Your task to perform on an android device: Do I have any events today? Image 0: 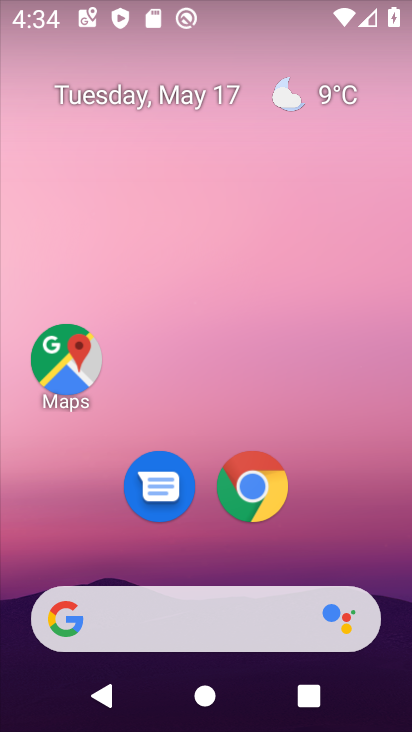
Step 0: drag from (379, 524) to (315, 133)
Your task to perform on an android device: Do I have any events today? Image 1: 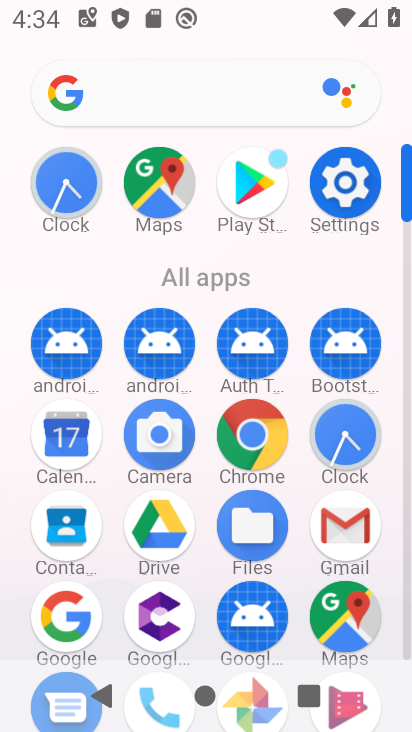
Step 1: click (76, 437)
Your task to perform on an android device: Do I have any events today? Image 2: 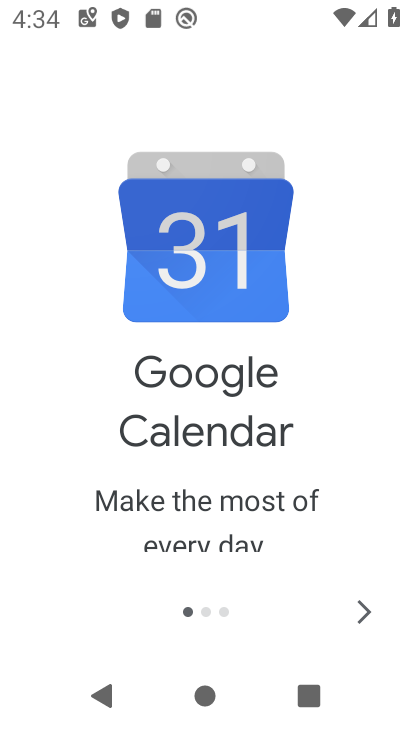
Step 2: click (365, 616)
Your task to perform on an android device: Do I have any events today? Image 3: 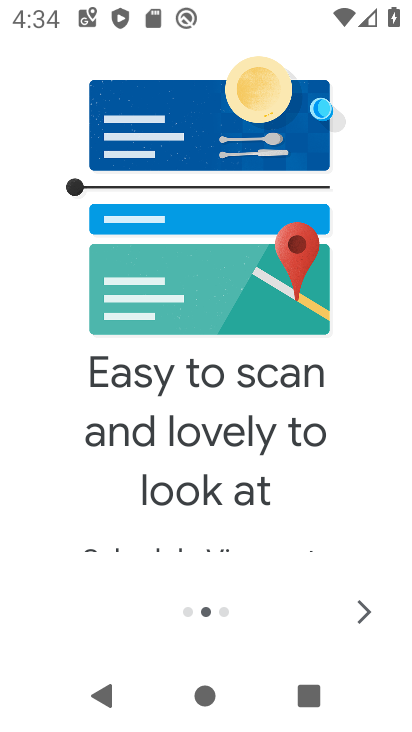
Step 3: click (365, 616)
Your task to perform on an android device: Do I have any events today? Image 4: 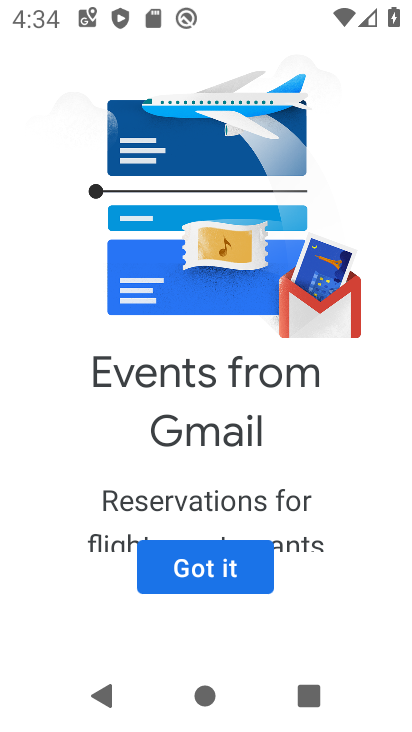
Step 4: click (245, 551)
Your task to perform on an android device: Do I have any events today? Image 5: 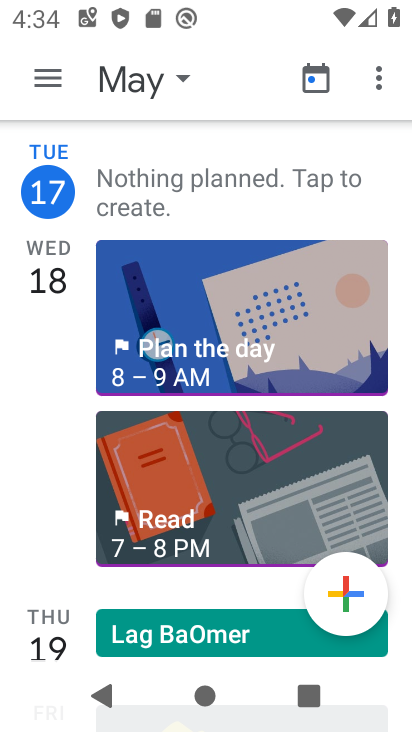
Step 5: click (57, 86)
Your task to perform on an android device: Do I have any events today? Image 6: 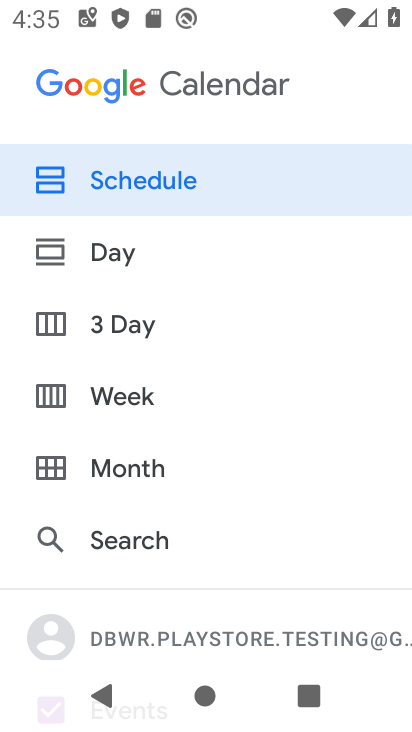
Step 6: drag from (208, 571) to (217, 247)
Your task to perform on an android device: Do I have any events today? Image 7: 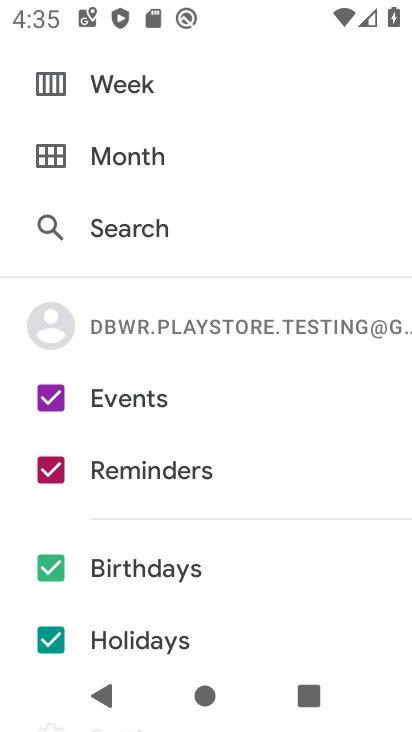
Step 7: click (52, 634)
Your task to perform on an android device: Do I have any events today? Image 8: 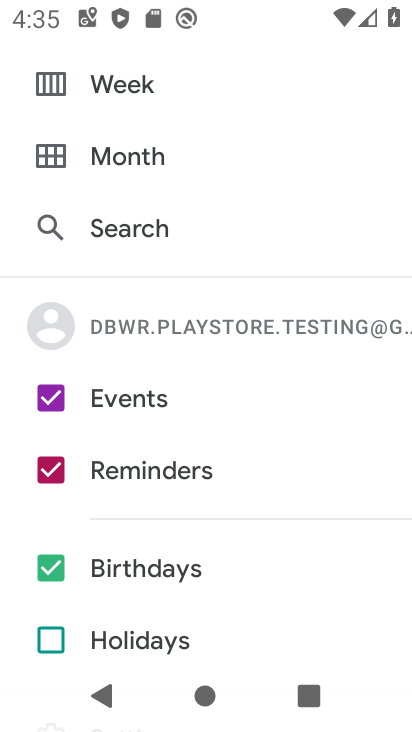
Step 8: click (55, 571)
Your task to perform on an android device: Do I have any events today? Image 9: 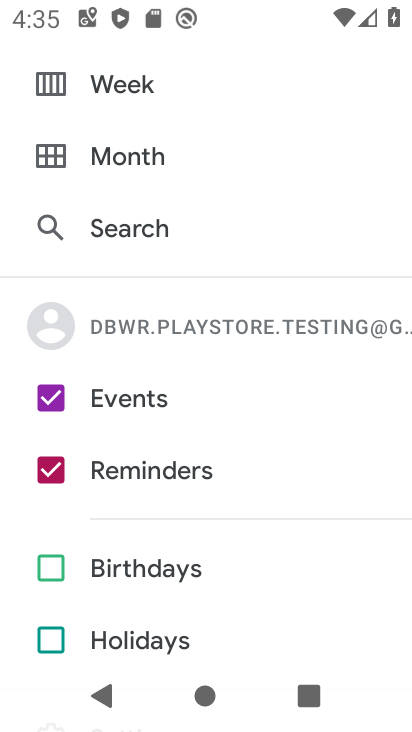
Step 9: click (48, 477)
Your task to perform on an android device: Do I have any events today? Image 10: 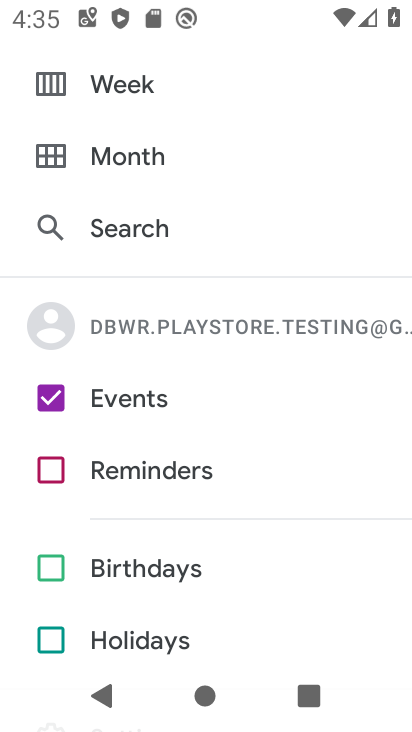
Step 10: drag from (169, 121) to (190, 547)
Your task to perform on an android device: Do I have any events today? Image 11: 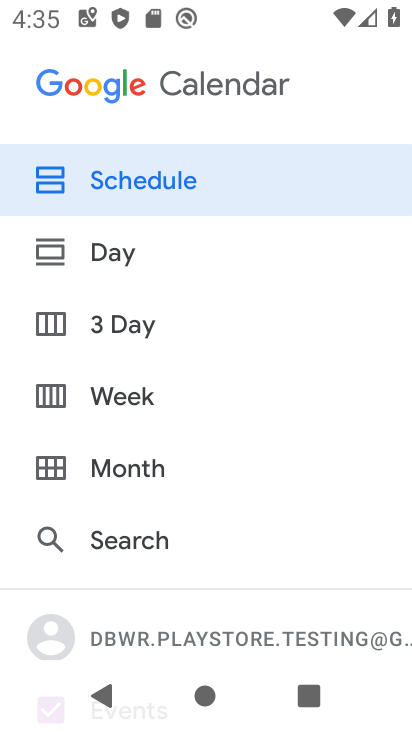
Step 11: click (152, 246)
Your task to perform on an android device: Do I have any events today? Image 12: 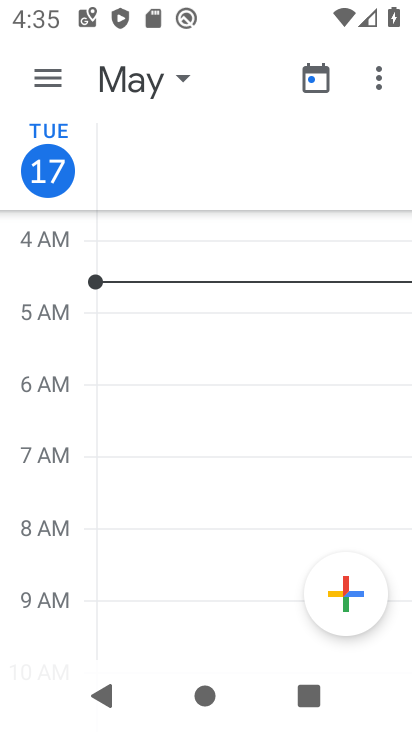
Step 12: click (162, 82)
Your task to perform on an android device: Do I have any events today? Image 13: 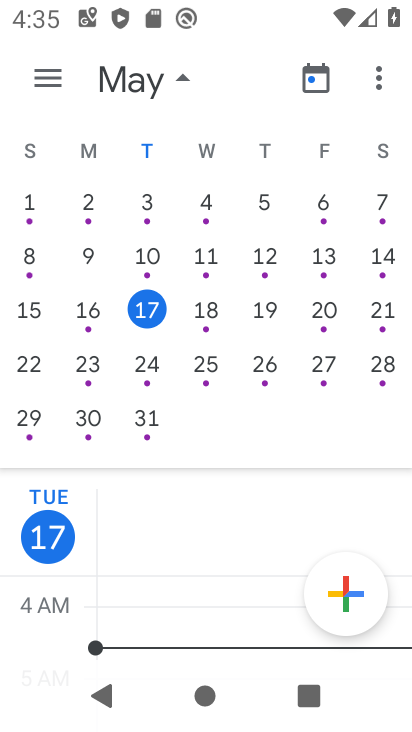
Step 13: click (150, 313)
Your task to perform on an android device: Do I have any events today? Image 14: 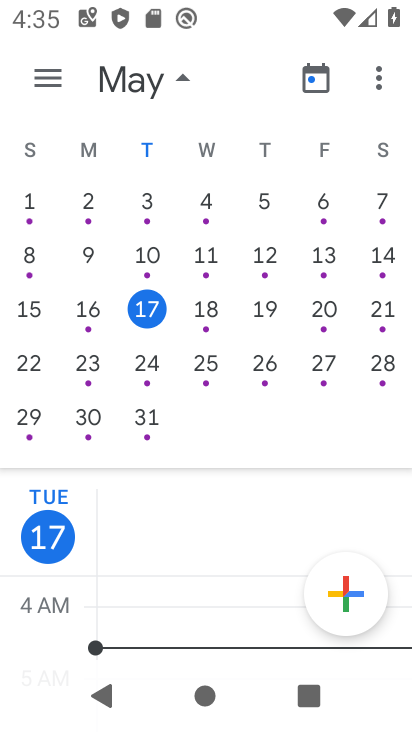
Step 14: click (139, 77)
Your task to perform on an android device: Do I have any events today? Image 15: 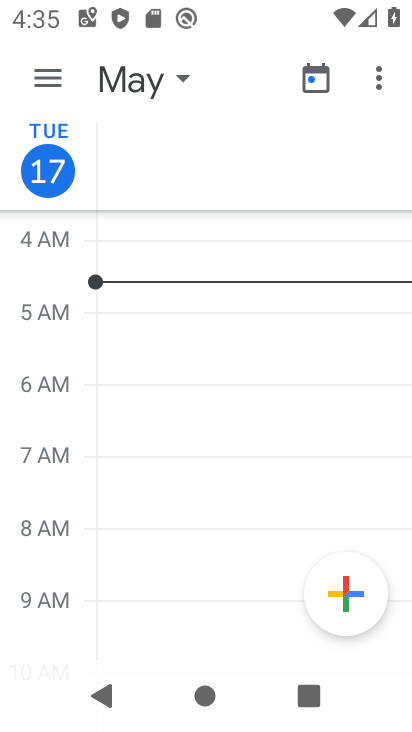
Step 15: task complete